Your task to perform on an android device: Go to network settings Image 0: 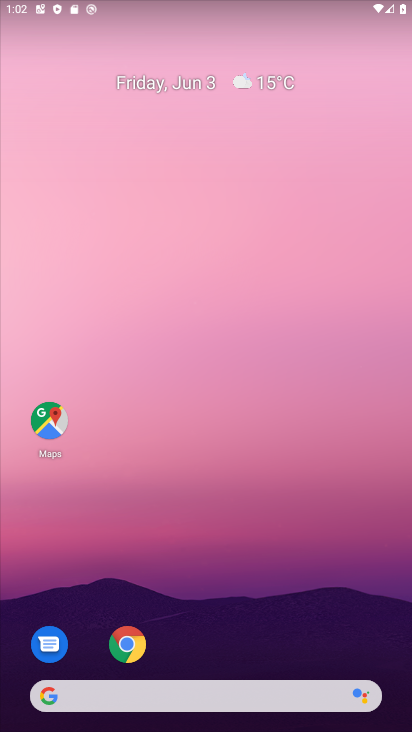
Step 0: drag from (191, 628) to (304, 21)
Your task to perform on an android device: Go to network settings Image 1: 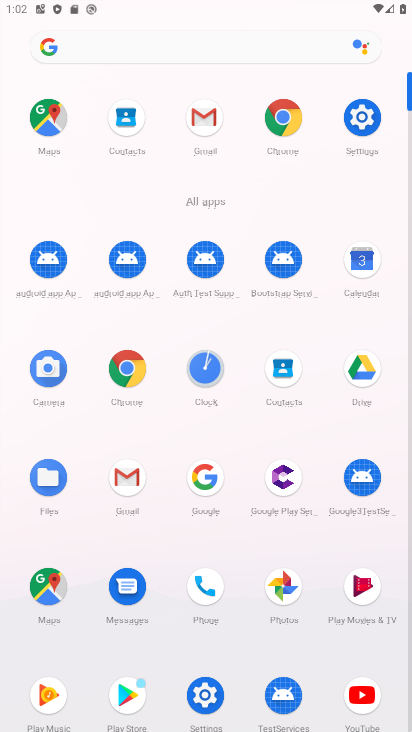
Step 1: click (360, 132)
Your task to perform on an android device: Go to network settings Image 2: 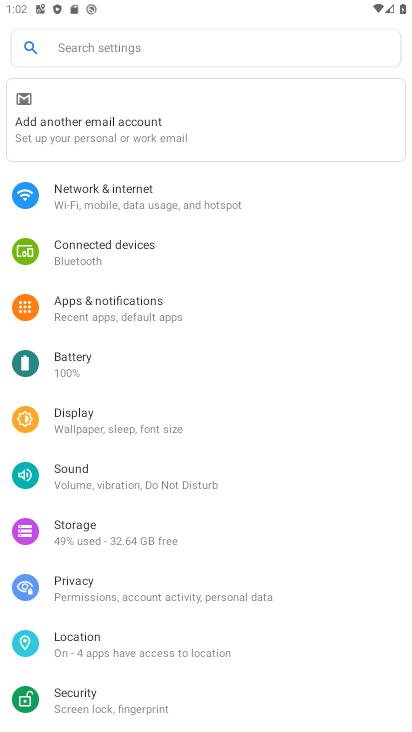
Step 2: click (141, 198)
Your task to perform on an android device: Go to network settings Image 3: 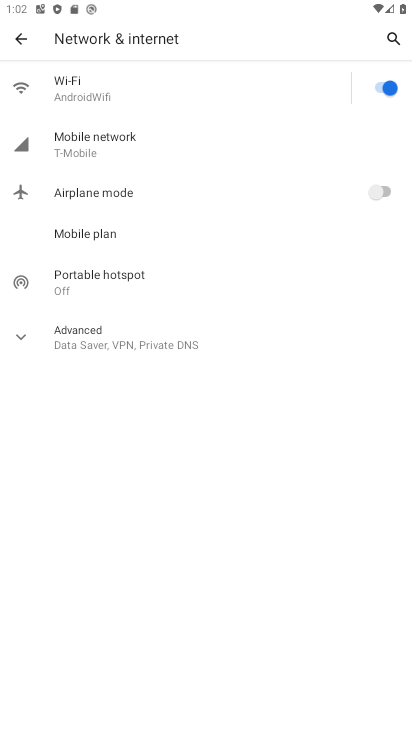
Step 3: task complete